Your task to perform on an android device: visit the assistant section in the google photos Image 0: 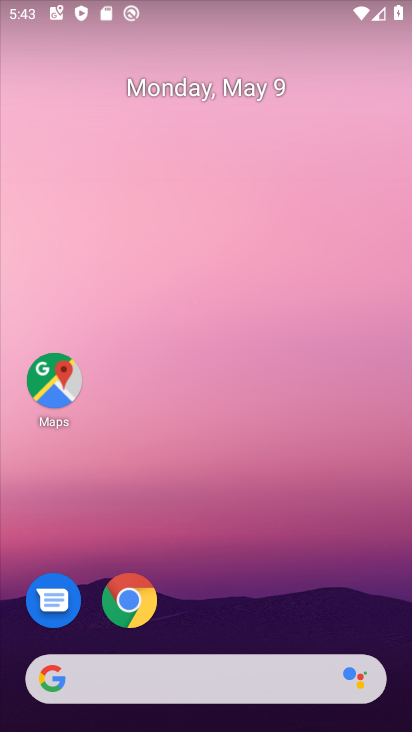
Step 0: drag from (194, 618) to (231, 86)
Your task to perform on an android device: visit the assistant section in the google photos Image 1: 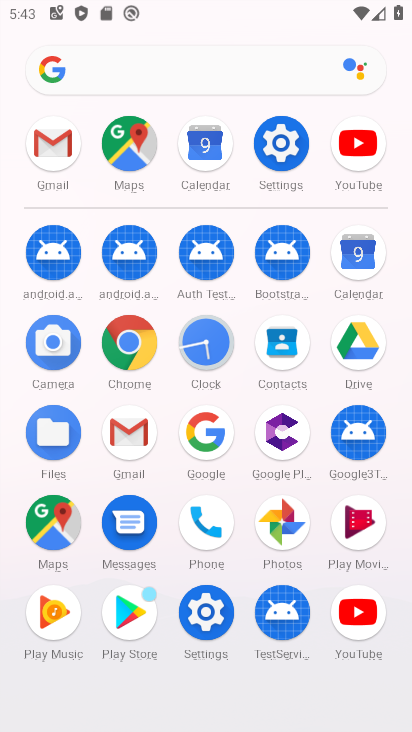
Step 1: click (284, 528)
Your task to perform on an android device: visit the assistant section in the google photos Image 2: 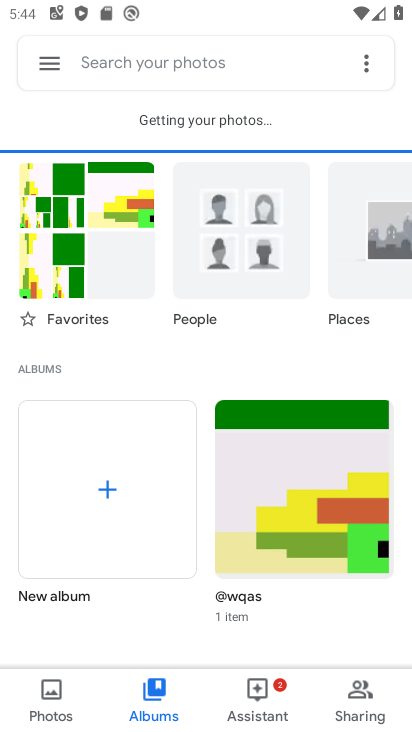
Step 2: click (258, 705)
Your task to perform on an android device: visit the assistant section in the google photos Image 3: 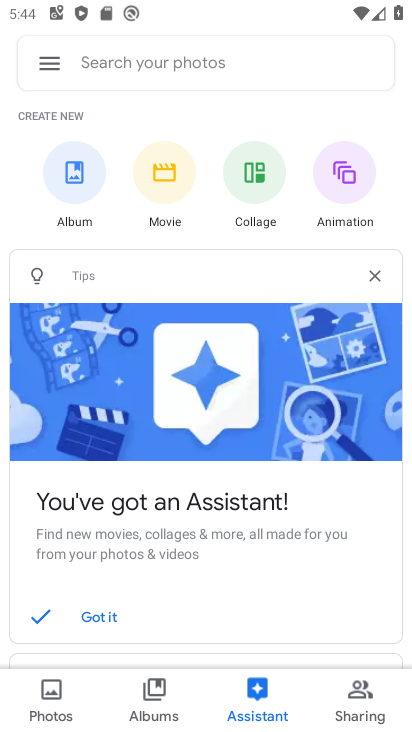
Step 3: task complete